Your task to perform on an android device: make emails show in primary in the gmail app Image 0: 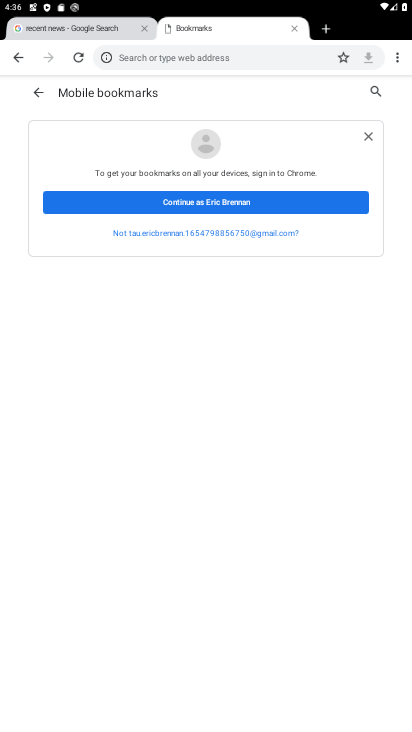
Step 0: press home button
Your task to perform on an android device: make emails show in primary in the gmail app Image 1: 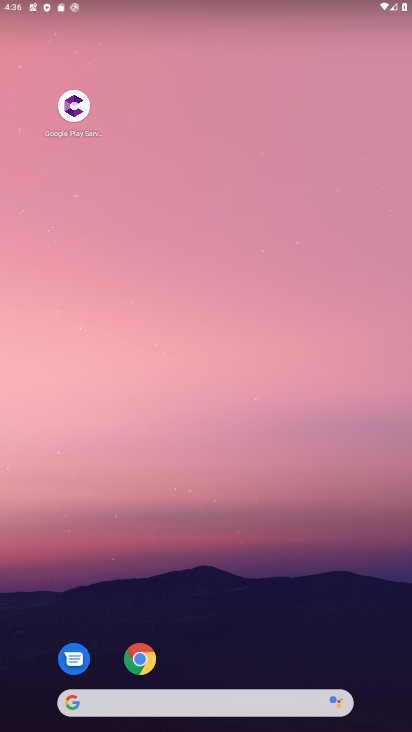
Step 1: drag from (261, 666) to (227, 80)
Your task to perform on an android device: make emails show in primary in the gmail app Image 2: 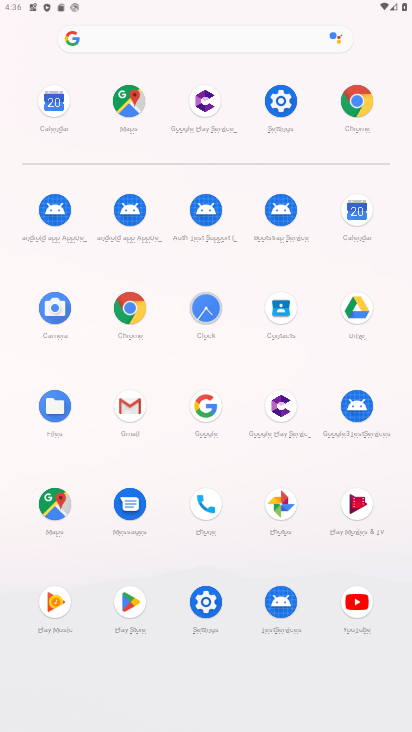
Step 2: click (134, 403)
Your task to perform on an android device: make emails show in primary in the gmail app Image 3: 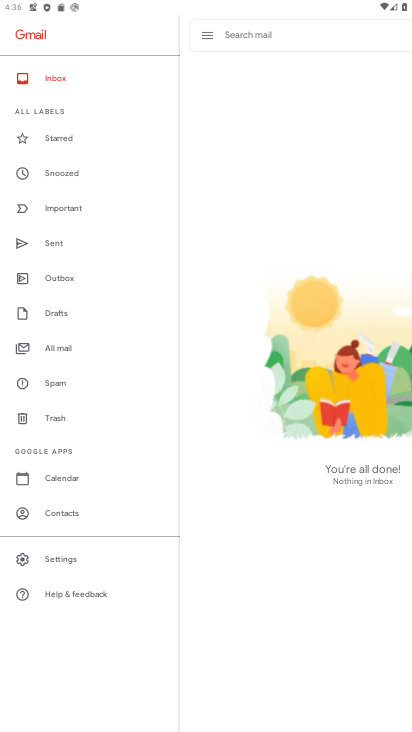
Step 3: click (75, 559)
Your task to perform on an android device: make emails show in primary in the gmail app Image 4: 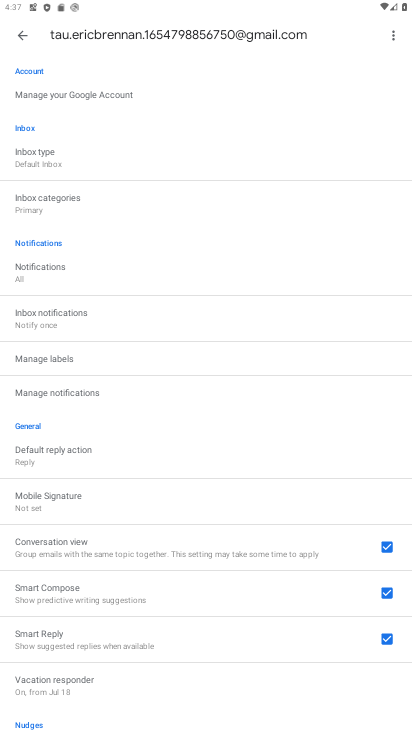
Step 4: click (62, 159)
Your task to perform on an android device: make emails show in primary in the gmail app Image 5: 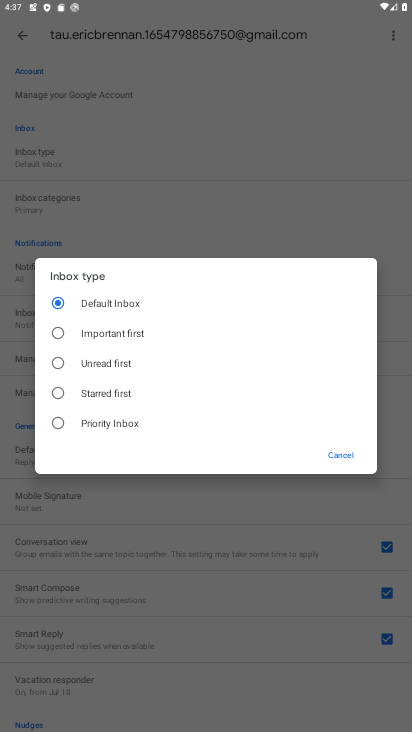
Step 5: task complete